Your task to perform on an android device: open sync settings in chrome Image 0: 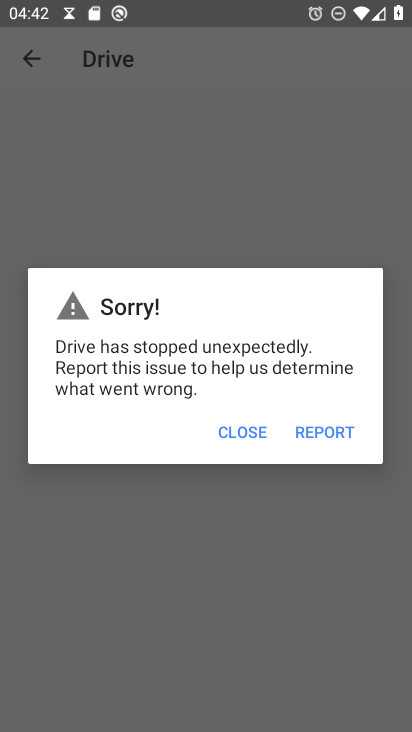
Step 0: press home button
Your task to perform on an android device: open sync settings in chrome Image 1: 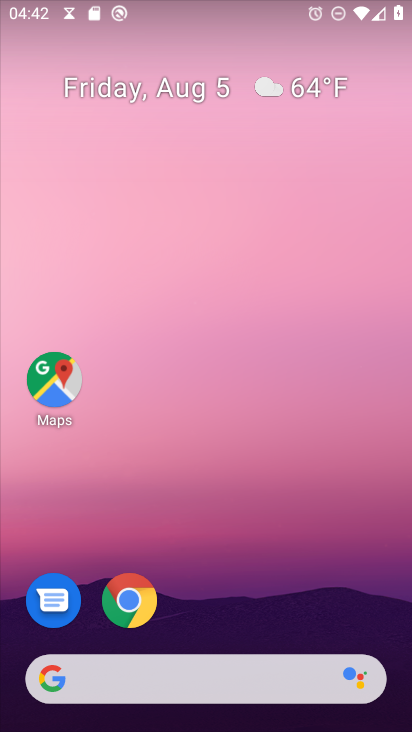
Step 1: drag from (240, 688) to (238, 195)
Your task to perform on an android device: open sync settings in chrome Image 2: 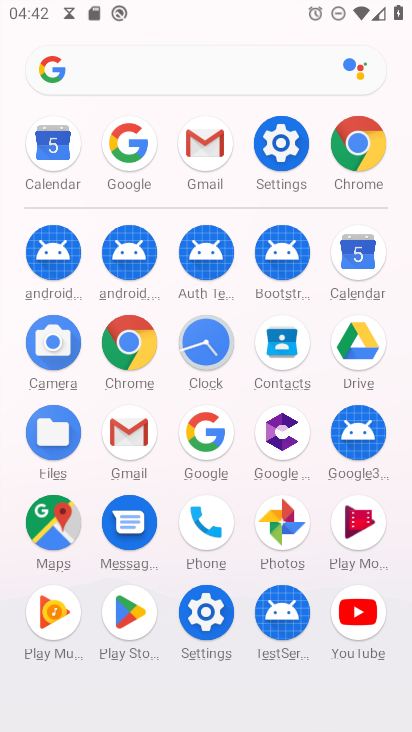
Step 2: click (361, 145)
Your task to perform on an android device: open sync settings in chrome Image 3: 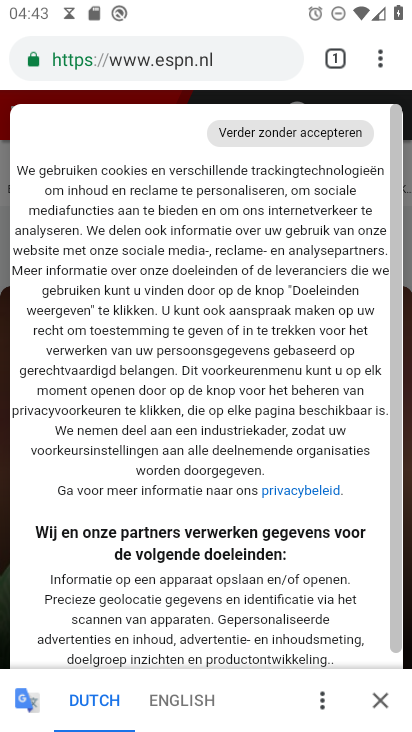
Step 3: click (382, 65)
Your task to perform on an android device: open sync settings in chrome Image 4: 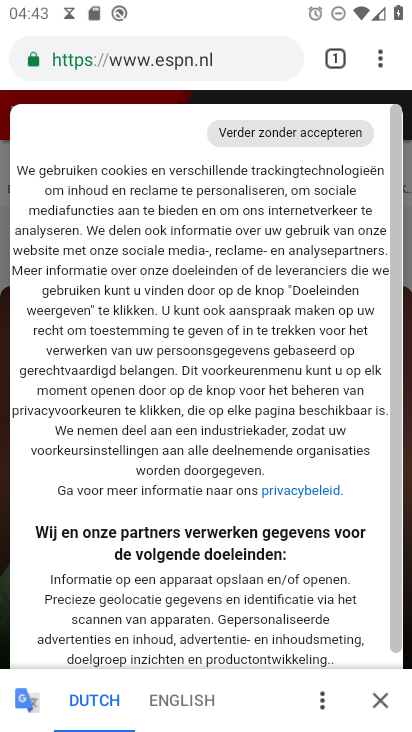
Step 4: click (382, 53)
Your task to perform on an android device: open sync settings in chrome Image 5: 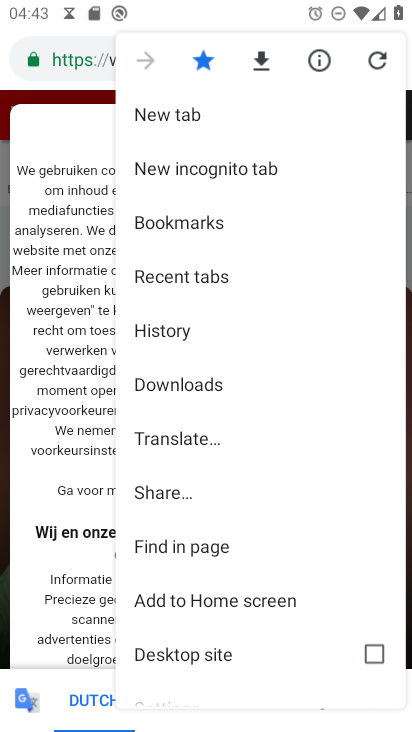
Step 5: drag from (257, 500) to (309, 418)
Your task to perform on an android device: open sync settings in chrome Image 6: 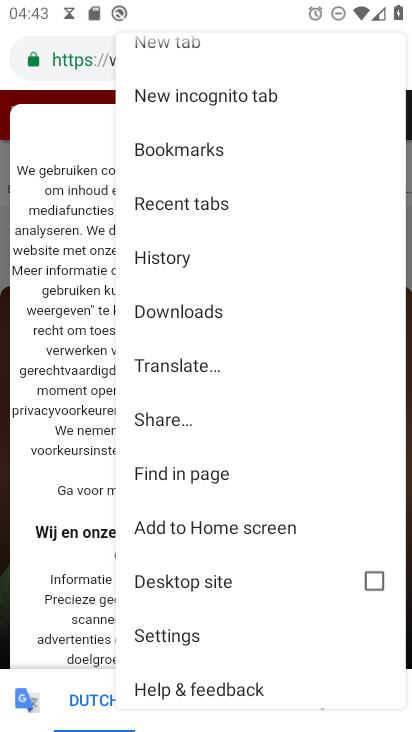
Step 6: drag from (238, 553) to (345, 431)
Your task to perform on an android device: open sync settings in chrome Image 7: 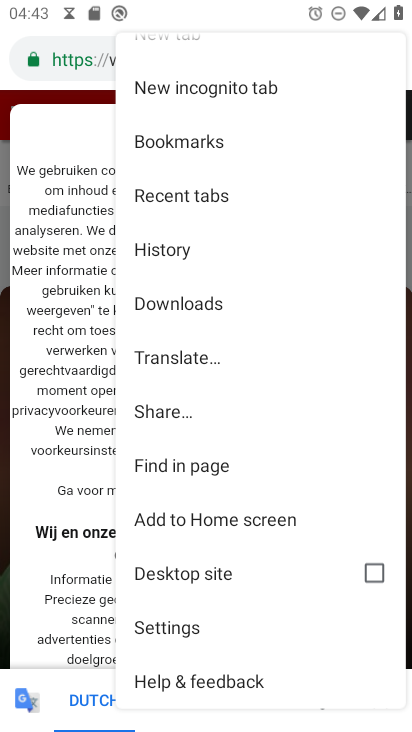
Step 7: click (189, 633)
Your task to perform on an android device: open sync settings in chrome Image 8: 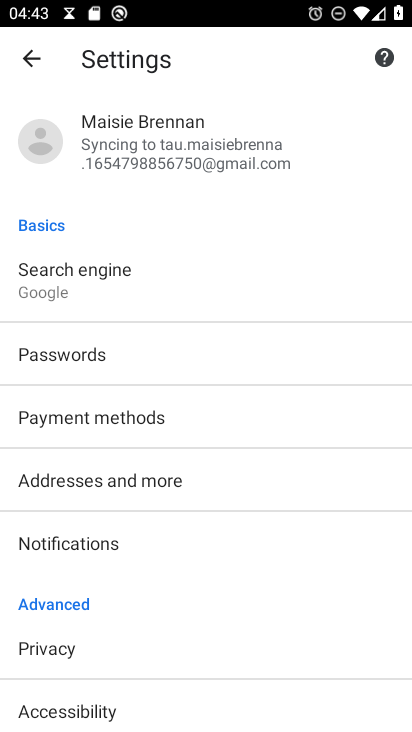
Step 8: drag from (157, 508) to (282, 233)
Your task to perform on an android device: open sync settings in chrome Image 9: 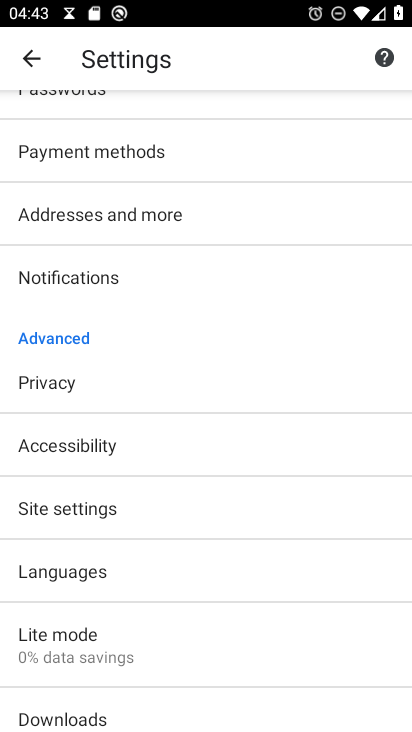
Step 9: drag from (184, 445) to (261, 350)
Your task to perform on an android device: open sync settings in chrome Image 10: 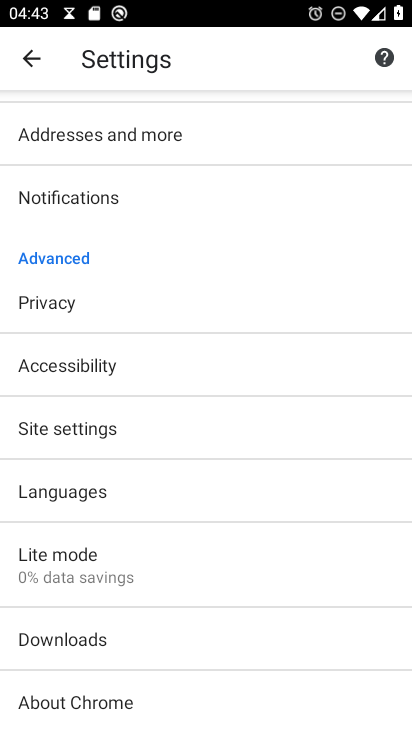
Step 10: click (110, 423)
Your task to perform on an android device: open sync settings in chrome Image 11: 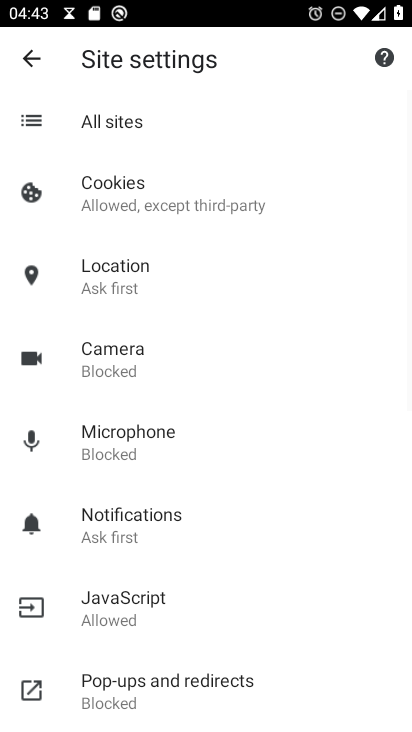
Step 11: drag from (177, 505) to (270, 354)
Your task to perform on an android device: open sync settings in chrome Image 12: 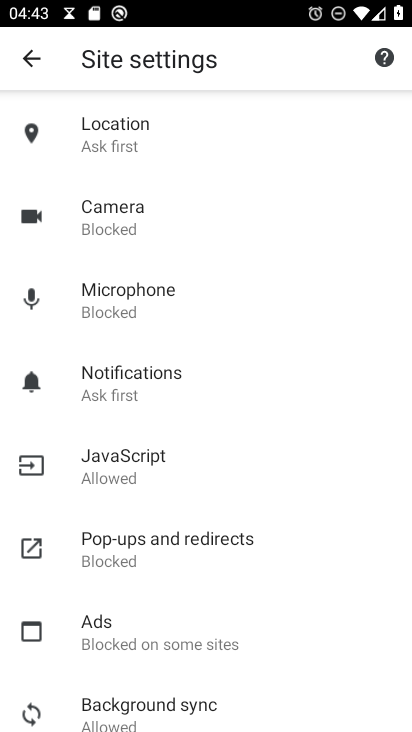
Step 12: drag from (203, 512) to (262, 412)
Your task to perform on an android device: open sync settings in chrome Image 13: 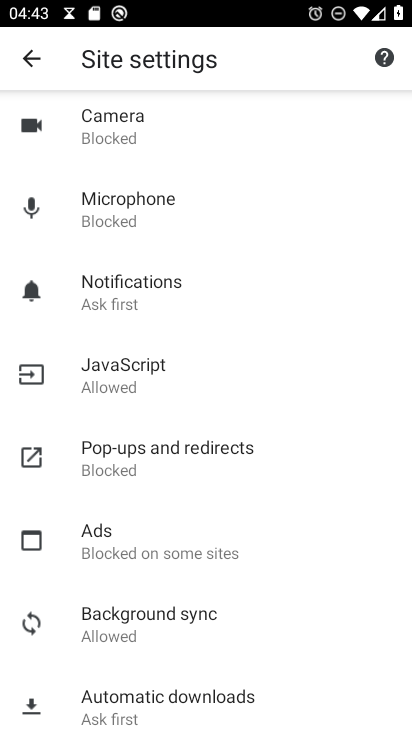
Step 13: click (188, 620)
Your task to perform on an android device: open sync settings in chrome Image 14: 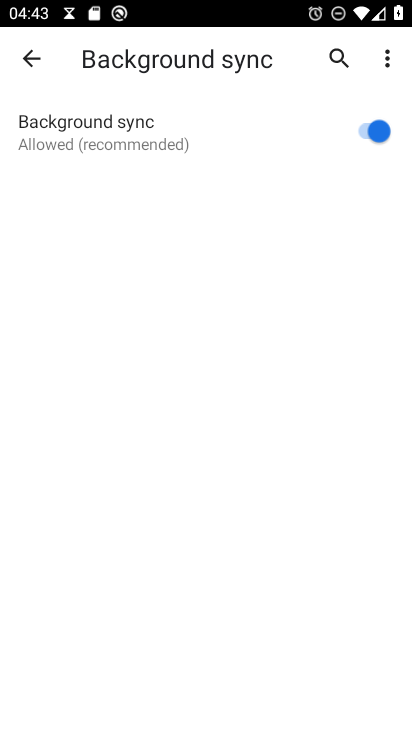
Step 14: task complete